Your task to perform on an android device: Open sound settings Image 0: 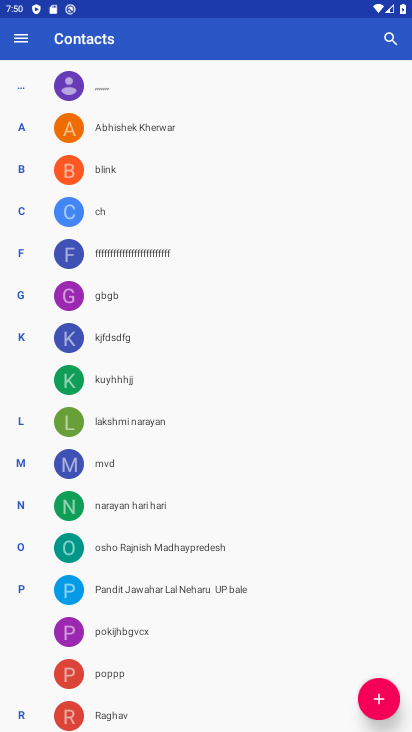
Step 0: press home button
Your task to perform on an android device: Open sound settings Image 1: 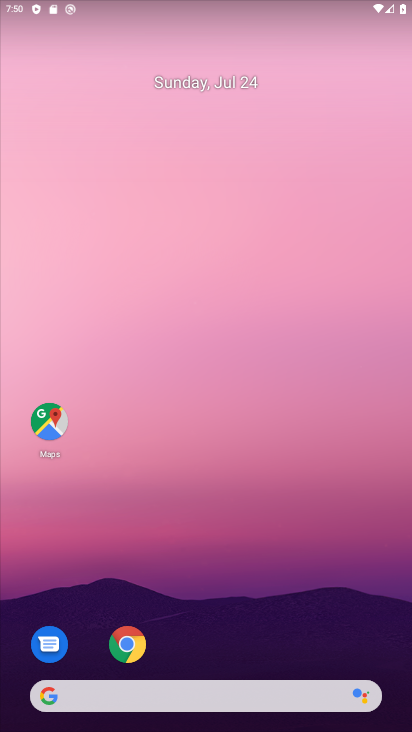
Step 1: drag from (190, 633) to (250, 109)
Your task to perform on an android device: Open sound settings Image 2: 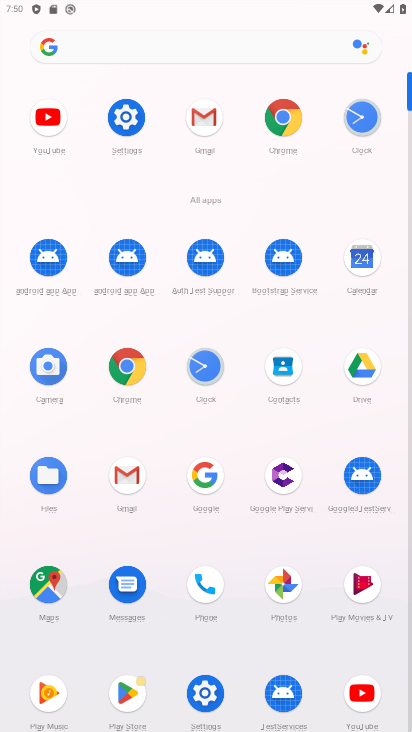
Step 2: click (204, 693)
Your task to perform on an android device: Open sound settings Image 3: 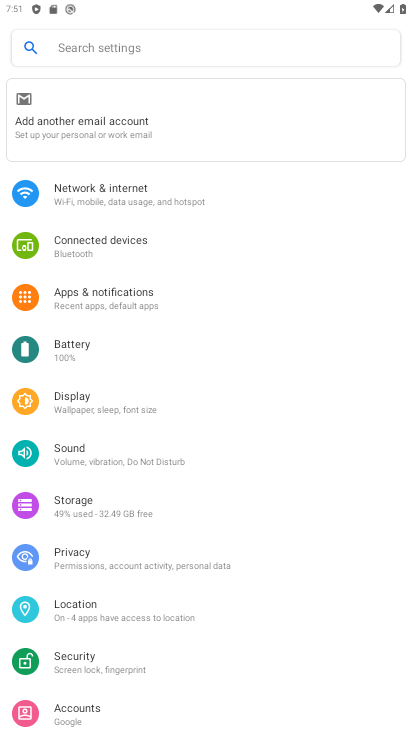
Step 3: click (91, 455)
Your task to perform on an android device: Open sound settings Image 4: 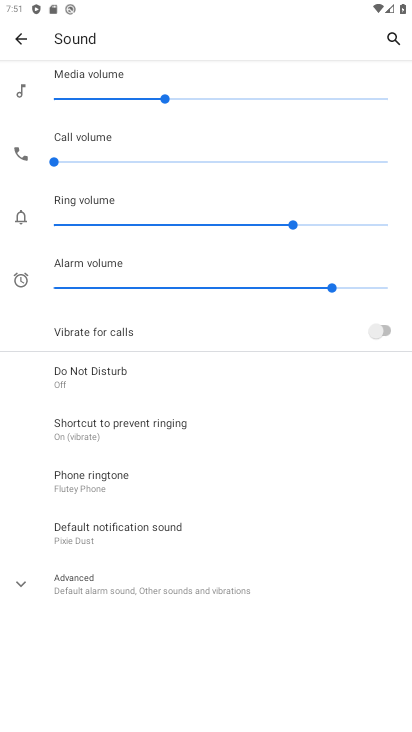
Step 4: task complete